Your task to perform on an android device: What is the news today? Image 0: 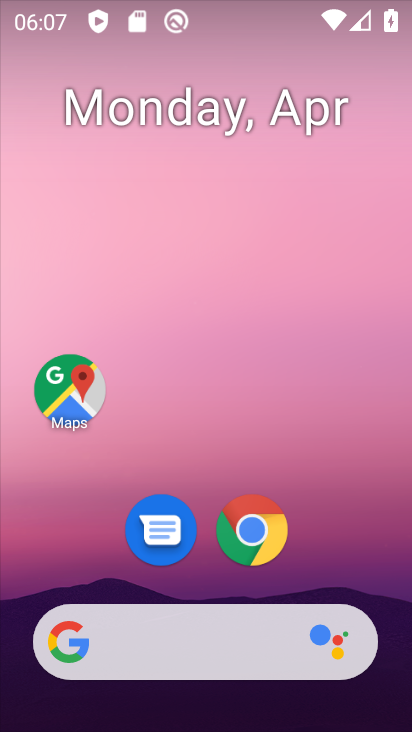
Step 0: click (251, 78)
Your task to perform on an android device: What is the news today? Image 1: 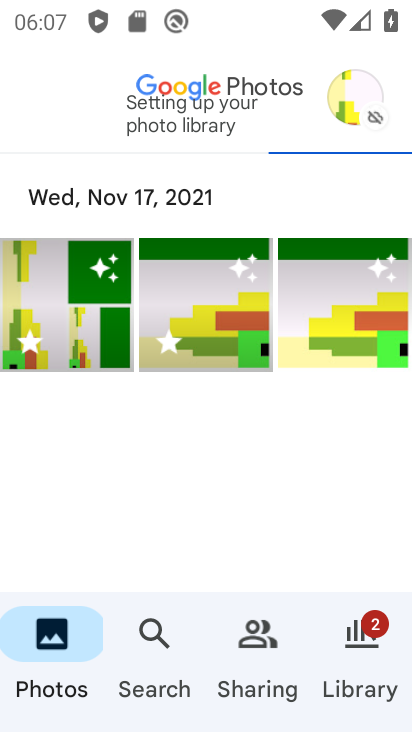
Step 1: task complete